Your task to perform on an android device: toggle translation in the chrome app Image 0: 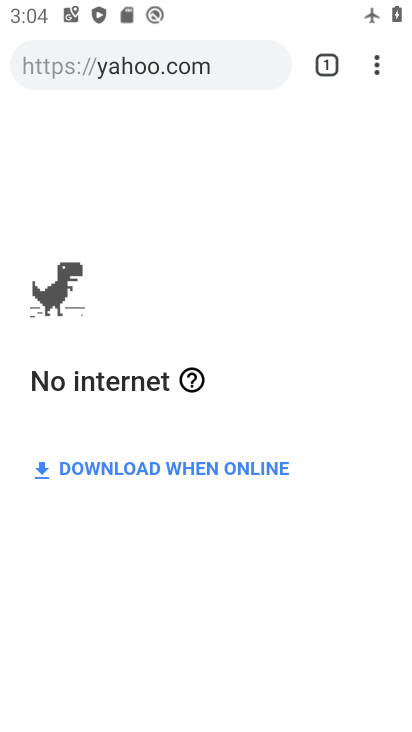
Step 0: press home button
Your task to perform on an android device: toggle translation in the chrome app Image 1: 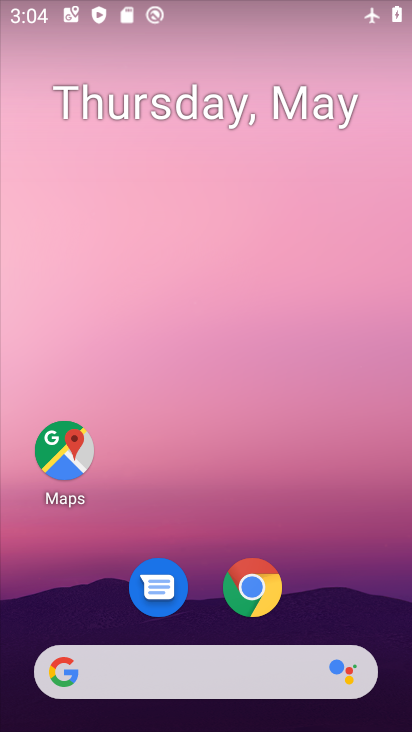
Step 1: drag from (289, 520) to (326, 289)
Your task to perform on an android device: toggle translation in the chrome app Image 2: 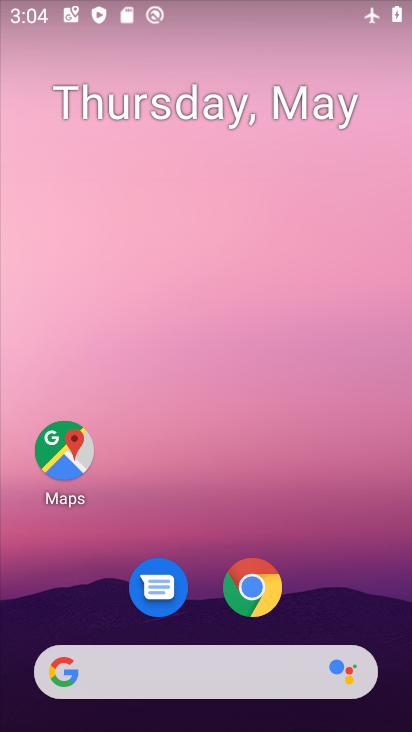
Step 2: click (250, 606)
Your task to perform on an android device: toggle translation in the chrome app Image 3: 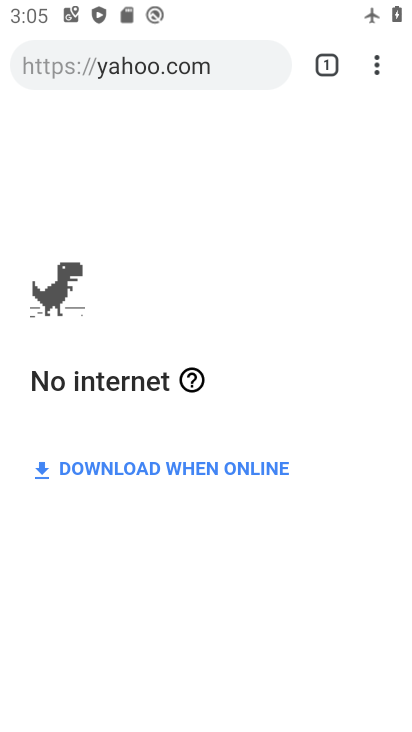
Step 3: click (374, 61)
Your task to perform on an android device: toggle translation in the chrome app Image 4: 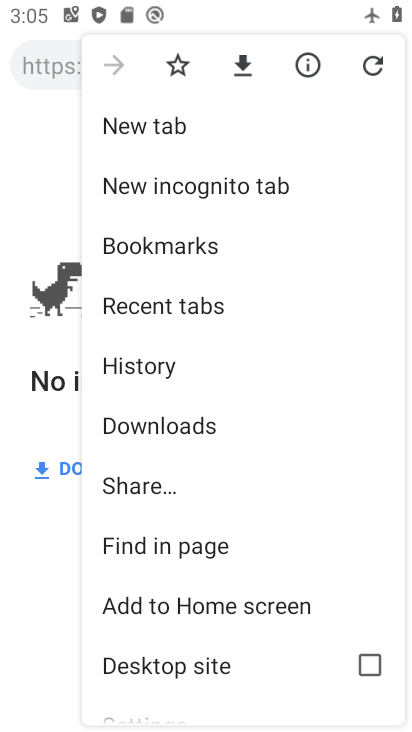
Step 4: task complete